Your task to perform on an android device: Open settings on Google Maps Image 0: 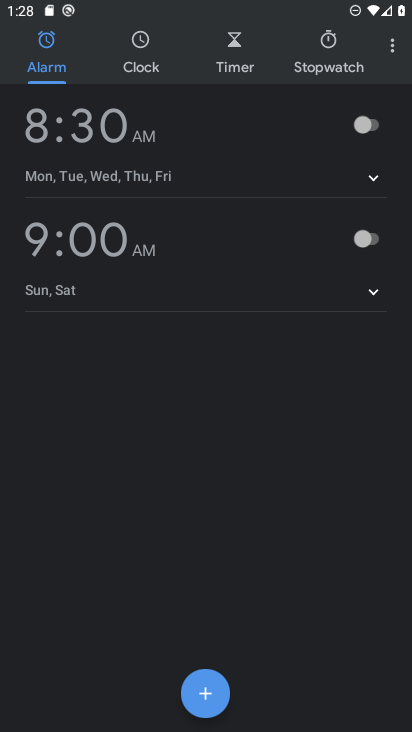
Step 0: press home button
Your task to perform on an android device: Open settings on Google Maps Image 1: 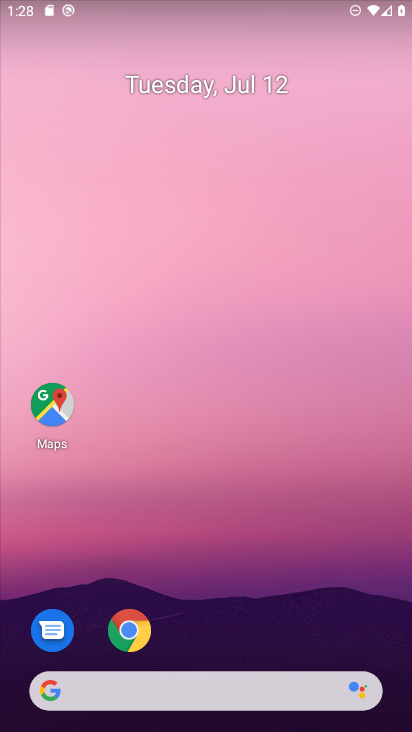
Step 1: click (53, 402)
Your task to perform on an android device: Open settings on Google Maps Image 2: 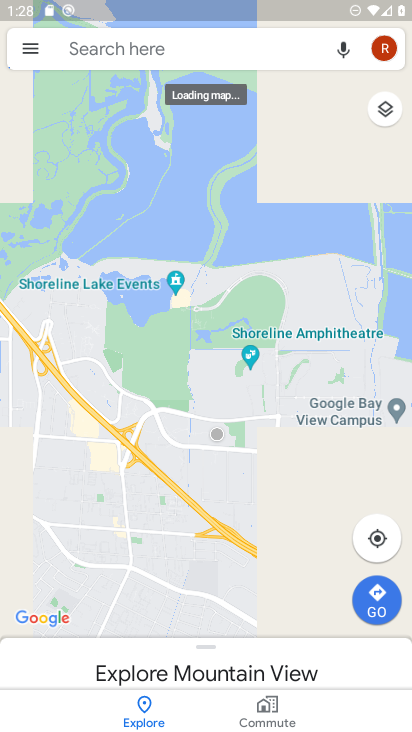
Step 2: click (29, 52)
Your task to perform on an android device: Open settings on Google Maps Image 3: 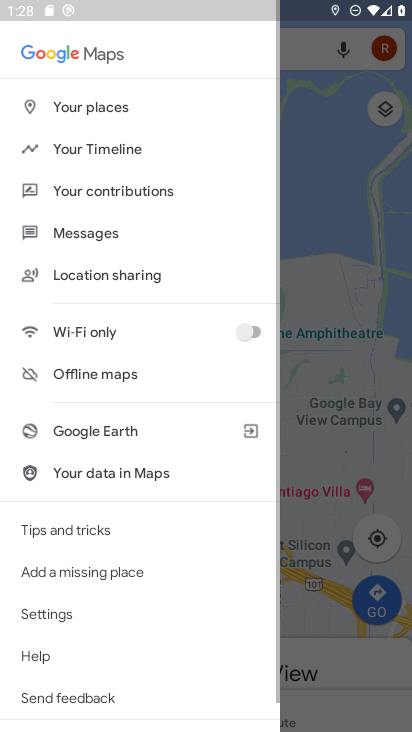
Step 3: click (55, 612)
Your task to perform on an android device: Open settings on Google Maps Image 4: 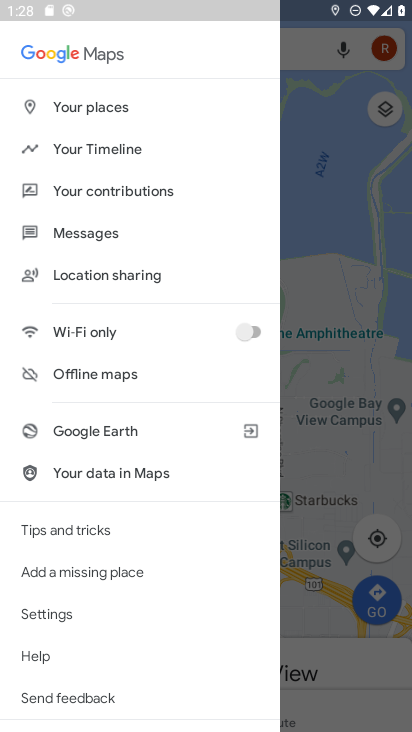
Step 4: click (49, 611)
Your task to perform on an android device: Open settings on Google Maps Image 5: 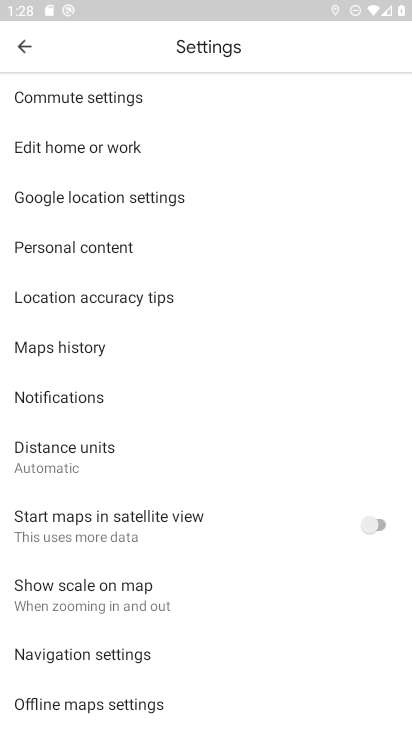
Step 5: task complete